Your task to perform on an android device: Look up the best rated gaming chair on Best Buy Image 0: 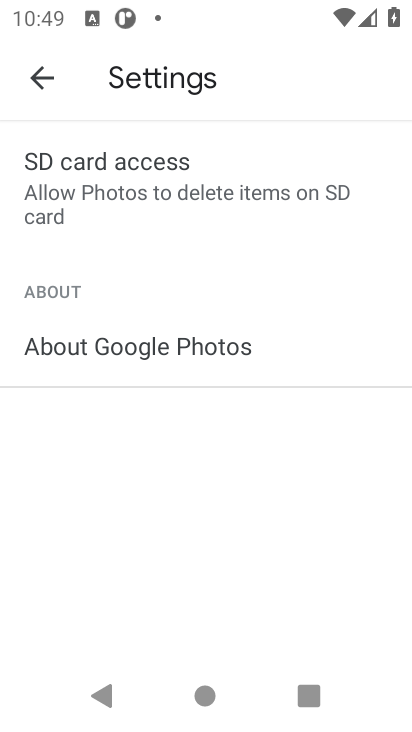
Step 0: press home button
Your task to perform on an android device: Look up the best rated gaming chair on Best Buy Image 1: 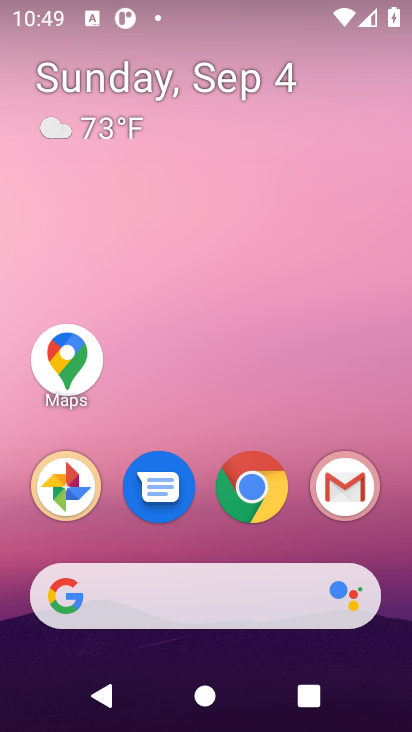
Step 1: click (167, 614)
Your task to perform on an android device: Look up the best rated gaming chair on Best Buy Image 2: 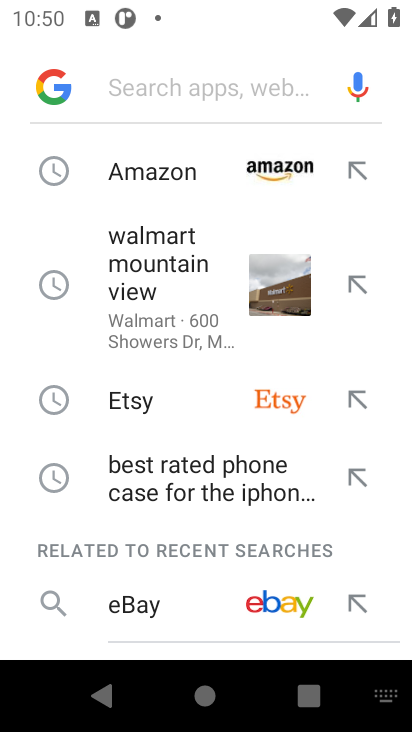
Step 2: type " Best Buy"
Your task to perform on an android device: Look up the best rated gaming chair on Best Buy Image 3: 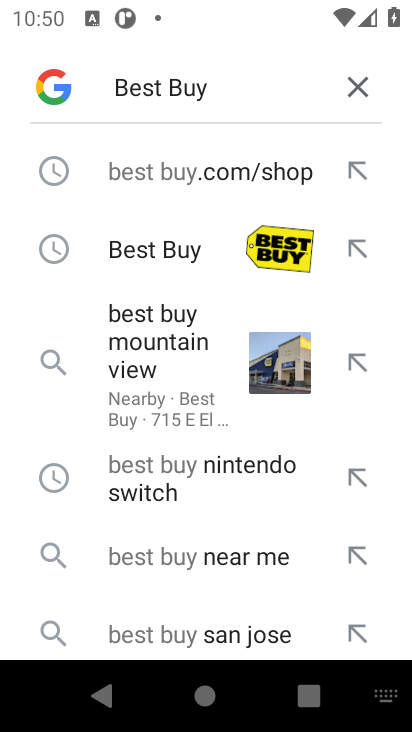
Step 3: click (205, 259)
Your task to perform on an android device: Look up the best rated gaming chair on Best Buy Image 4: 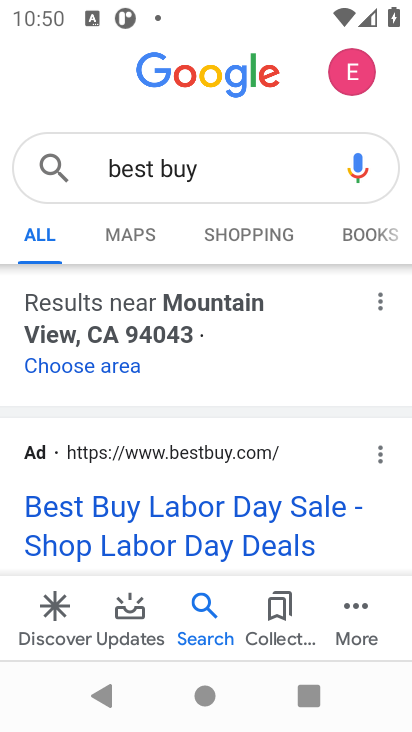
Step 4: click (156, 521)
Your task to perform on an android device: Look up the best rated gaming chair on Best Buy Image 5: 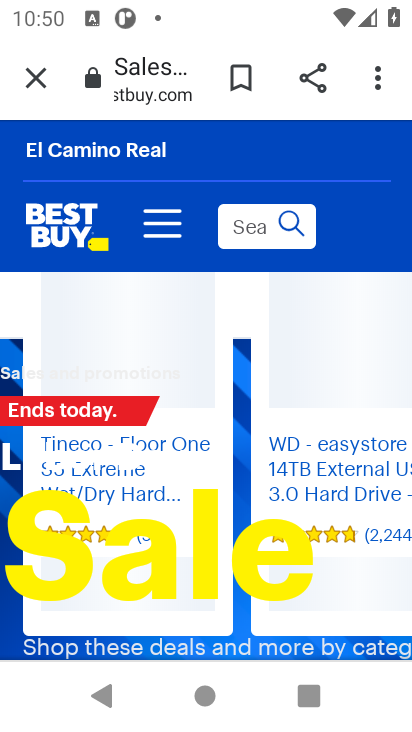
Step 5: click (305, 227)
Your task to perform on an android device: Look up the best rated gaming chair on Best Buy Image 6: 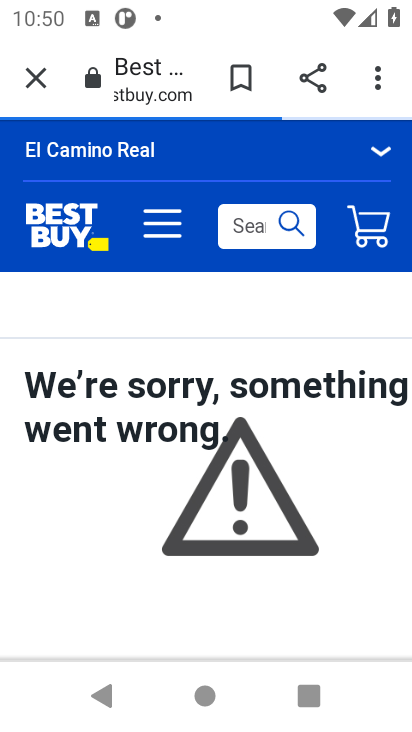
Step 6: click (255, 235)
Your task to perform on an android device: Look up the best rated gaming chair on Best Buy Image 7: 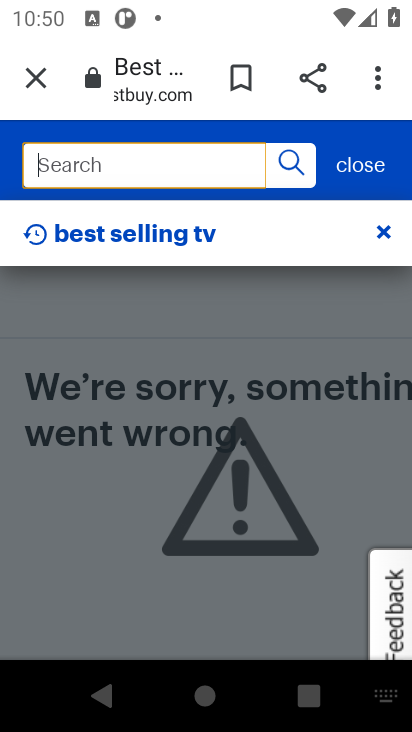
Step 7: drag from (389, 682) to (338, 698)
Your task to perform on an android device: Look up the best rated gaming chair on Best Buy Image 8: 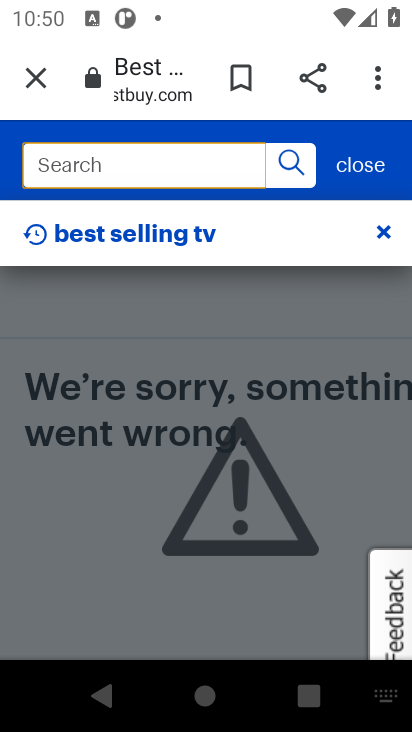
Step 8: type "best rated gaming chair"
Your task to perform on an android device: Look up the best rated gaming chair on Best Buy Image 9: 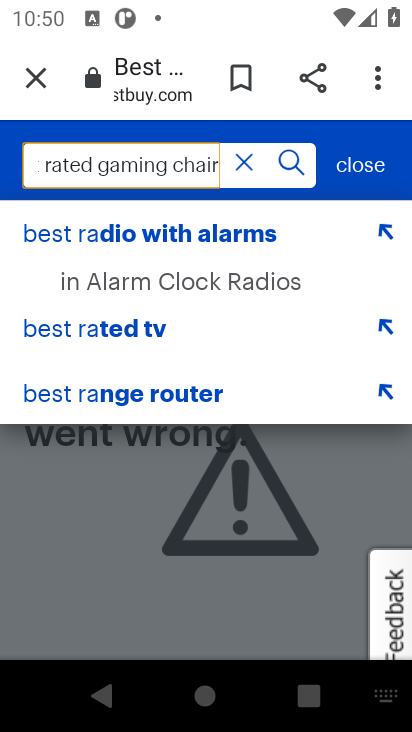
Step 9: click (297, 174)
Your task to perform on an android device: Look up the best rated gaming chair on Best Buy Image 10: 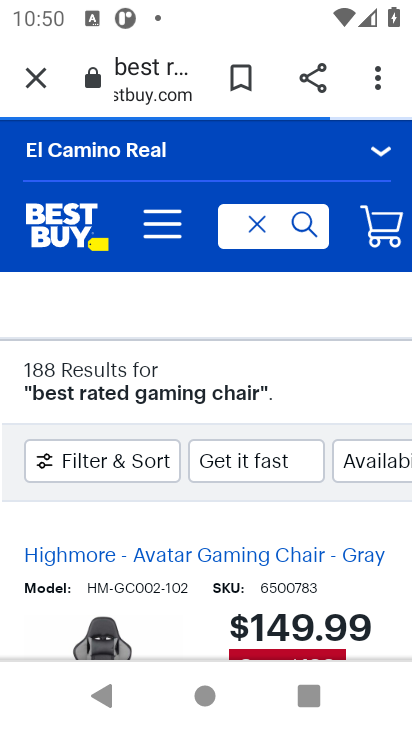
Step 10: task complete